Your task to perform on an android device: Go to privacy settings Image 0: 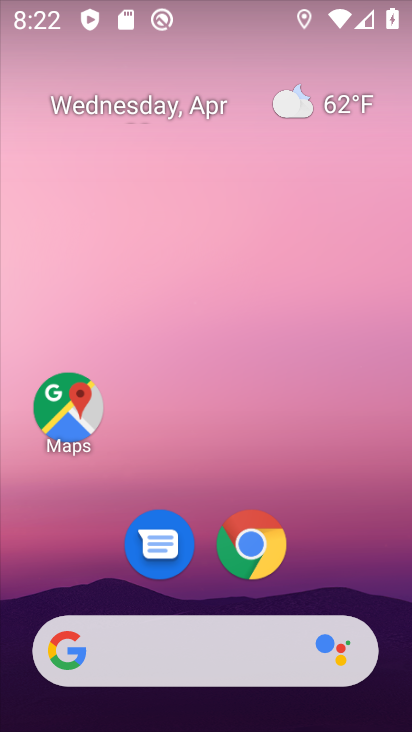
Step 0: drag from (341, 374) to (330, 256)
Your task to perform on an android device: Go to privacy settings Image 1: 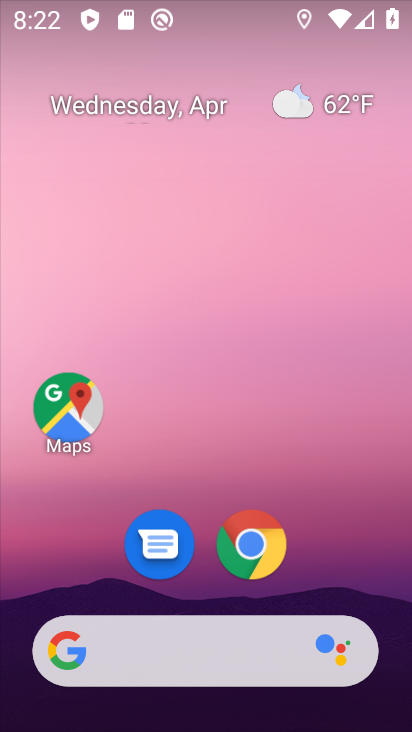
Step 1: click (257, 547)
Your task to perform on an android device: Go to privacy settings Image 2: 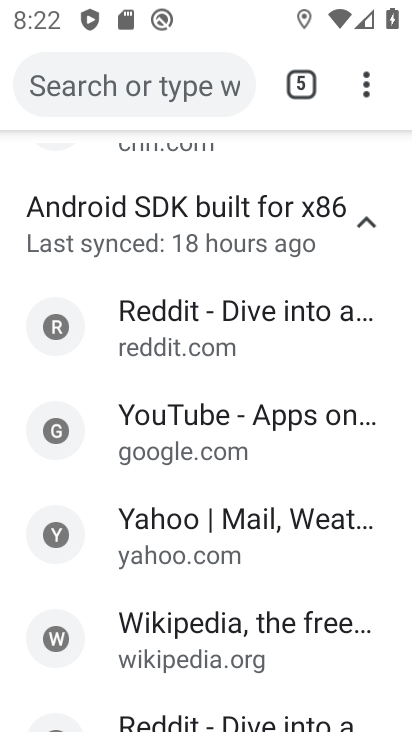
Step 2: drag from (365, 87) to (126, 594)
Your task to perform on an android device: Go to privacy settings Image 3: 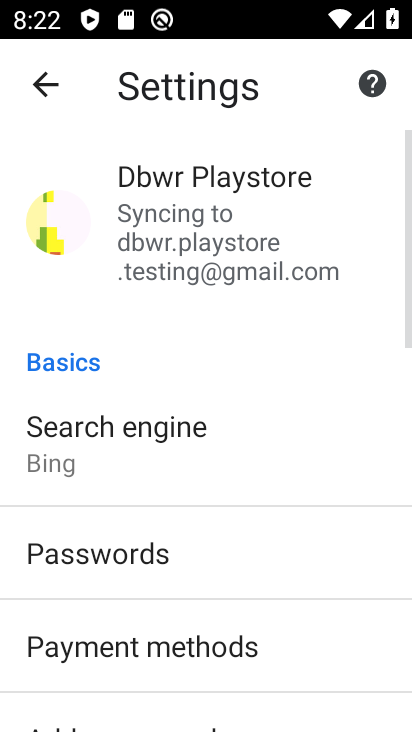
Step 3: drag from (318, 648) to (266, 285)
Your task to perform on an android device: Go to privacy settings Image 4: 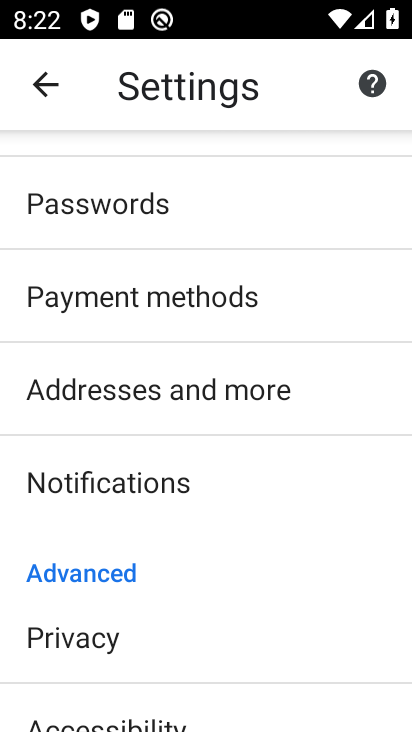
Step 4: click (78, 631)
Your task to perform on an android device: Go to privacy settings Image 5: 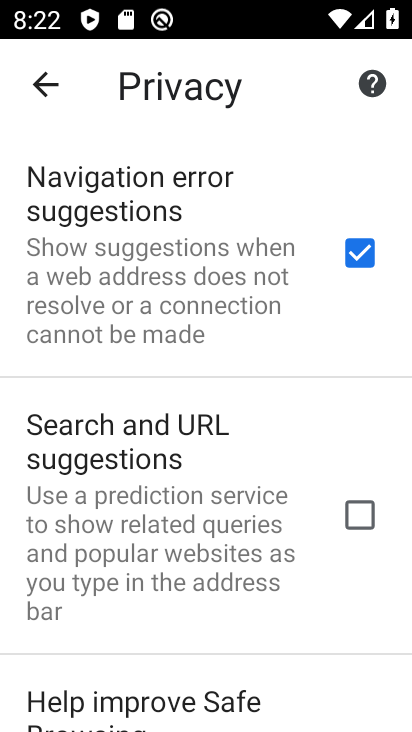
Step 5: task complete